Your task to perform on an android device: snooze an email in the gmail app Image 0: 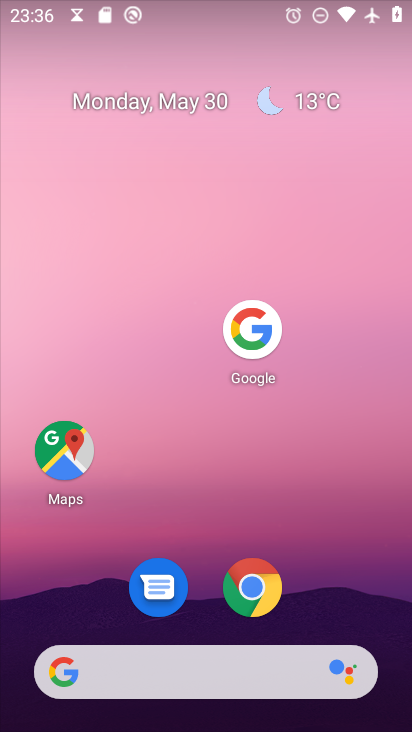
Step 0: press home button
Your task to perform on an android device: snooze an email in the gmail app Image 1: 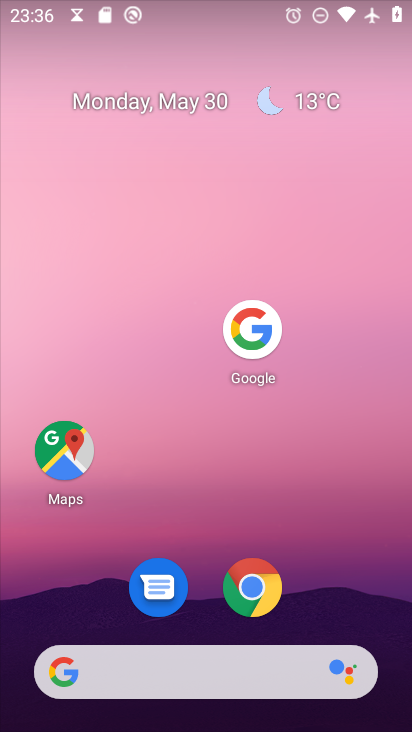
Step 1: drag from (240, 548) to (277, 114)
Your task to perform on an android device: snooze an email in the gmail app Image 2: 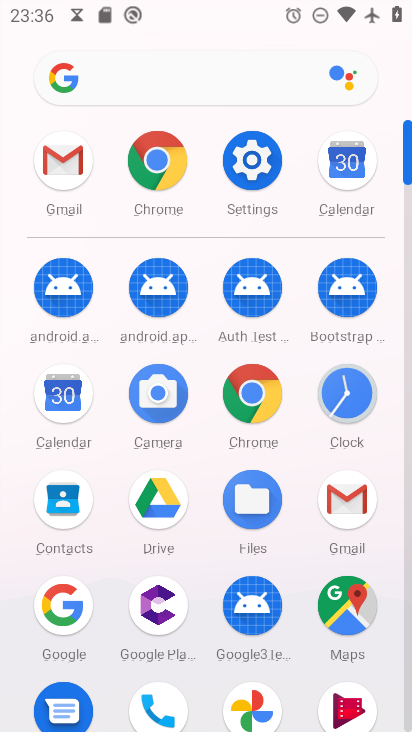
Step 2: click (367, 498)
Your task to perform on an android device: snooze an email in the gmail app Image 3: 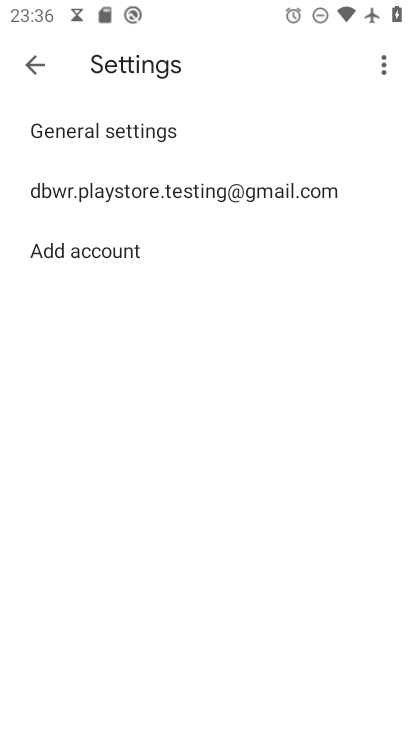
Step 3: click (40, 63)
Your task to perform on an android device: snooze an email in the gmail app Image 4: 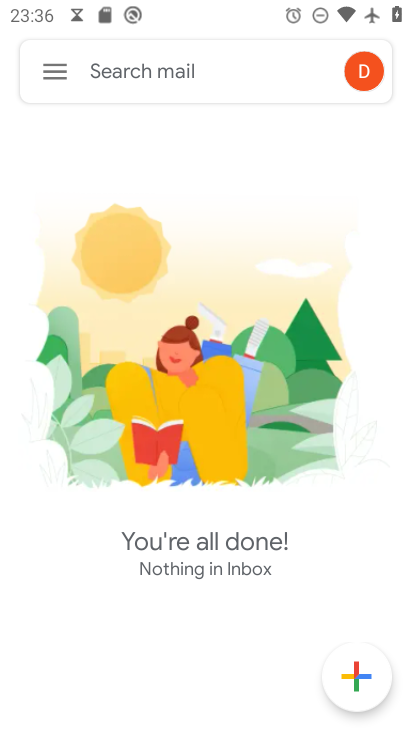
Step 4: task complete